Your task to perform on an android device: allow cookies in the chrome app Image 0: 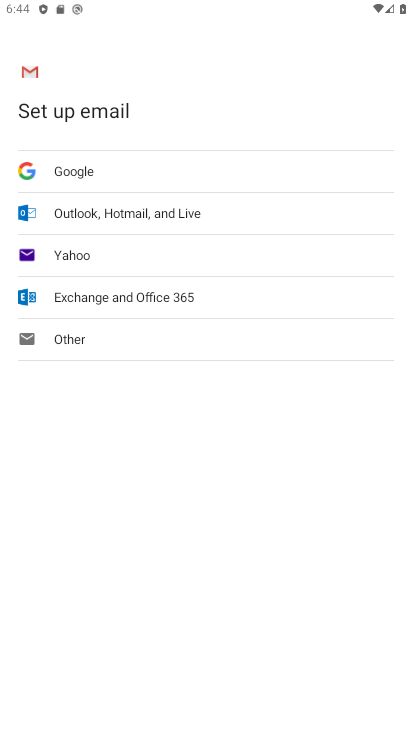
Step 0: press home button
Your task to perform on an android device: allow cookies in the chrome app Image 1: 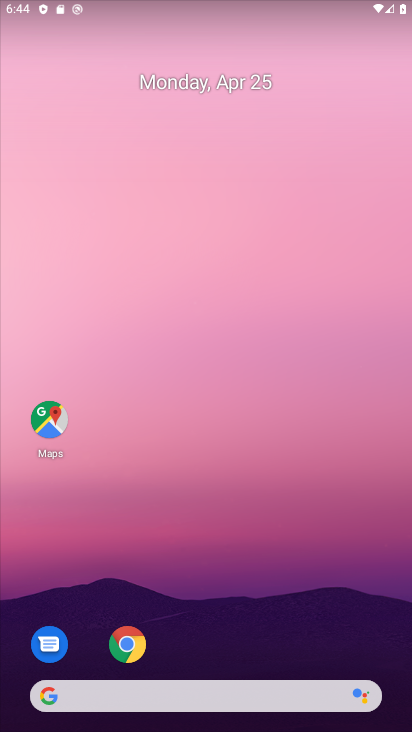
Step 1: click (126, 644)
Your task to perform on an android device: allow cookies in the chrome app Image 2: 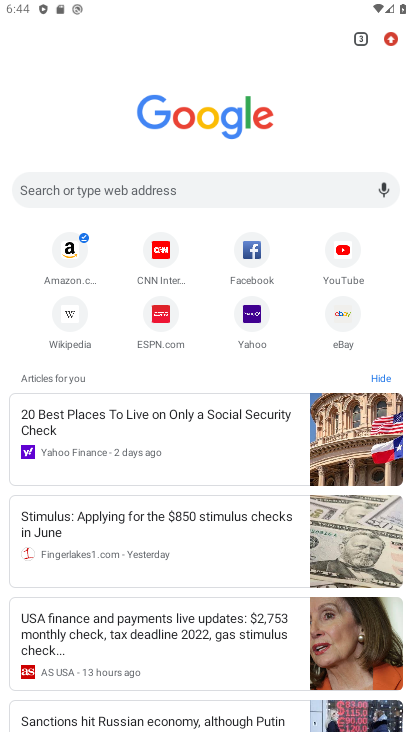
Step 2: click (391, 40)
Your task to perform on an android device: allow cookies in the chrome app Image 3: 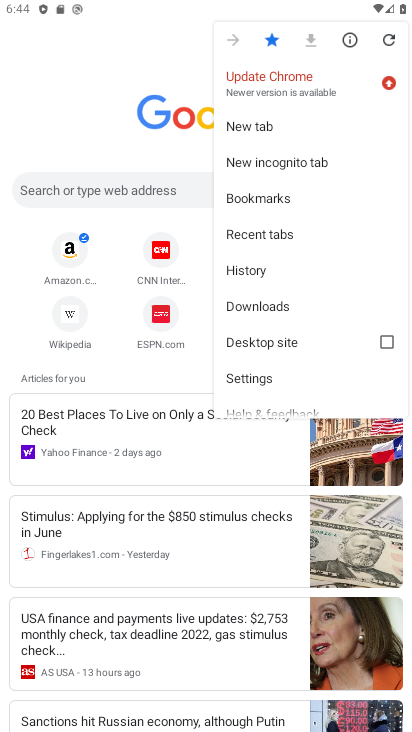
Step 3: click (255, 376)
Your task to perform on an android device: allow cookies in the chrome app Image 4: 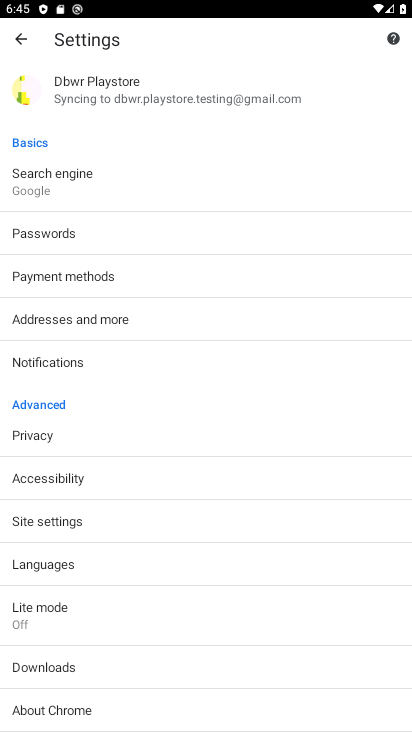
Step 4: click (85, 525)
Your task to perform on an android device: allow cookies in the chrome app Image 5: 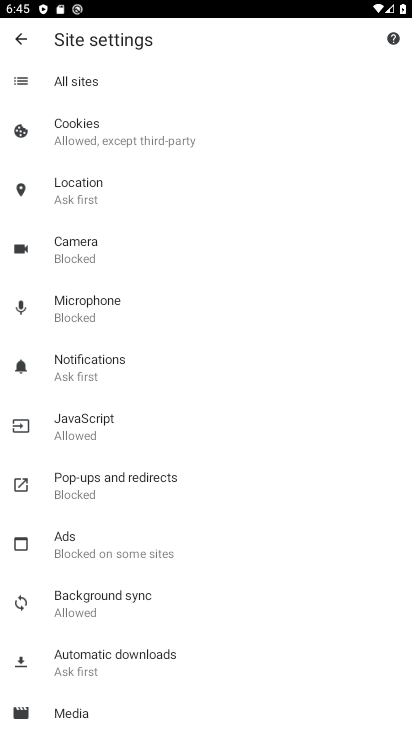
Step 5: click (95, 133)
Your task to perform on an android device: allow cookies in the chrome app Image 6: 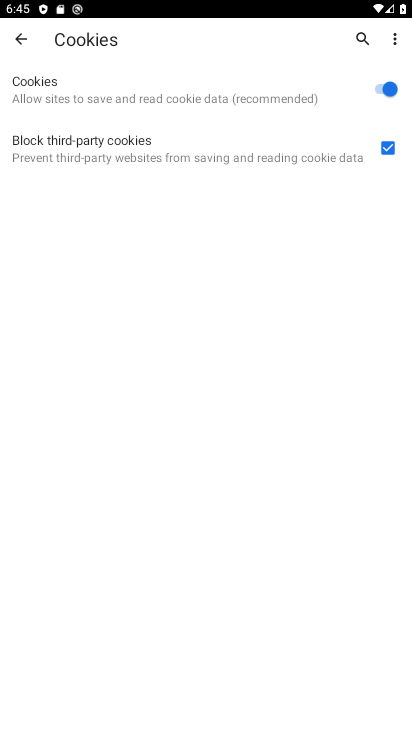
Step 6: task complete